Your task to perform on an android device: Search for pizza restaurants on Maps Image 0: 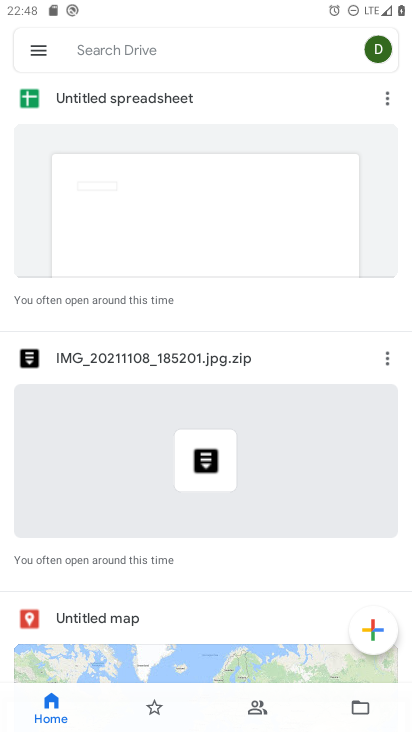
Step 0: press home button
Your task to perform on an android device: Search for pizza restaurants on Maps Image 1: 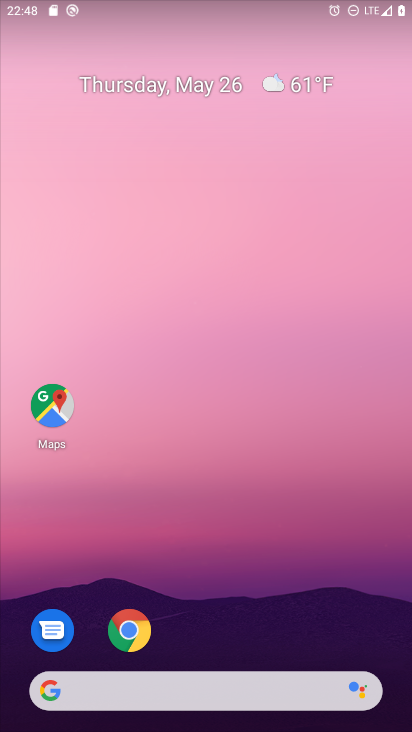
Step 1: click (33, 406)
Your task to perform on an android device: Search for pizza restaurants on Maps Image 2: 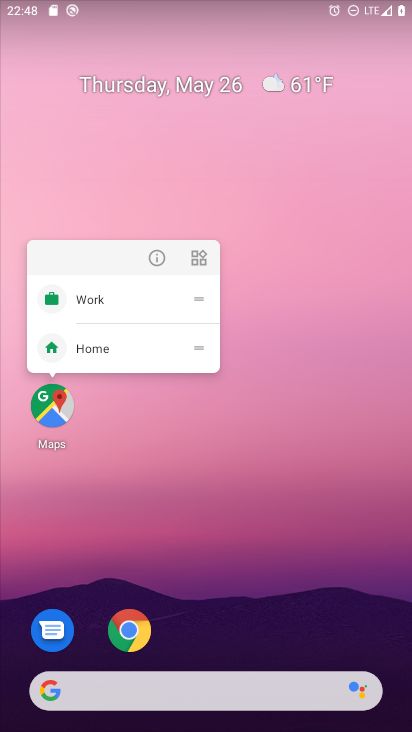
Step 2: click (56, 400)
Your task to perform on an android device: Search for pizza restaurants on Maps Image 3: 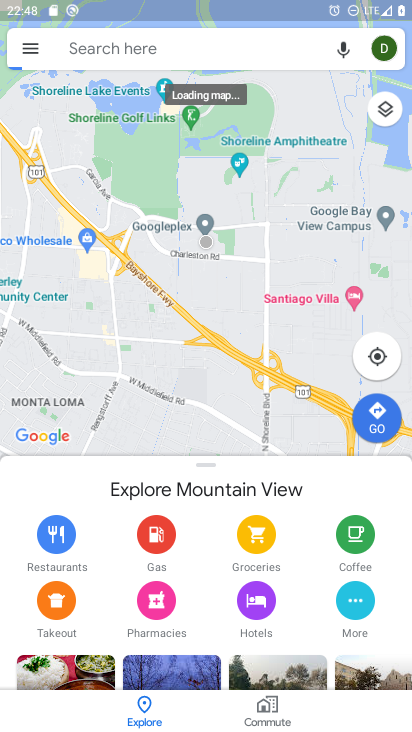
Step 3: click (101, 40)
Your task to perform on an android device: Search for pizza restaurants on Maps Image 4: 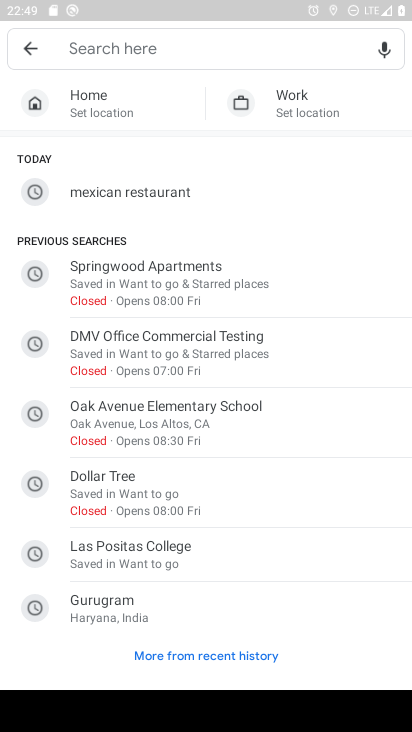
Step 4: type "pizza "
Your task to perform on an android device: Search for pizza restaurants on Maps Image 5: 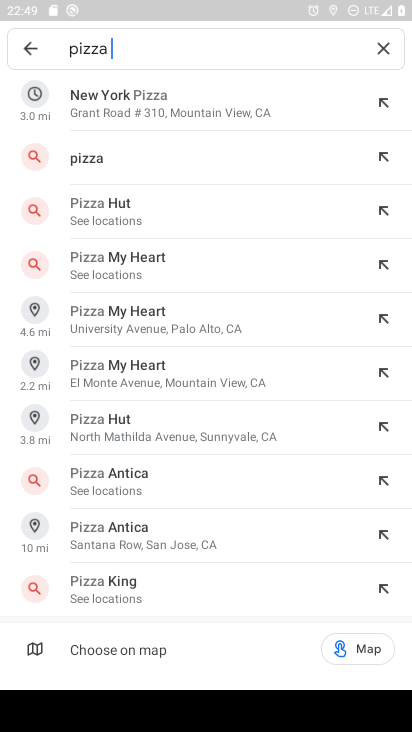
Step 5: type "restuarant"
Your task to perform on an android device: Search for pizza restaurants on Maps Image 6: 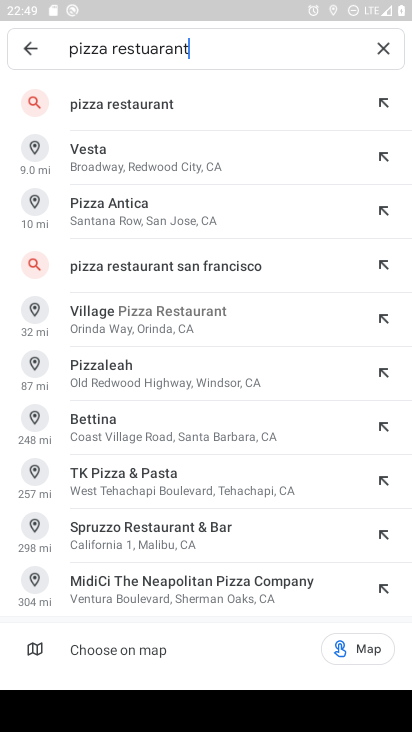
Step 6: click (194, 115)
Your task to perform on an android device: Search for pizza restaurants on Maps Image 7: 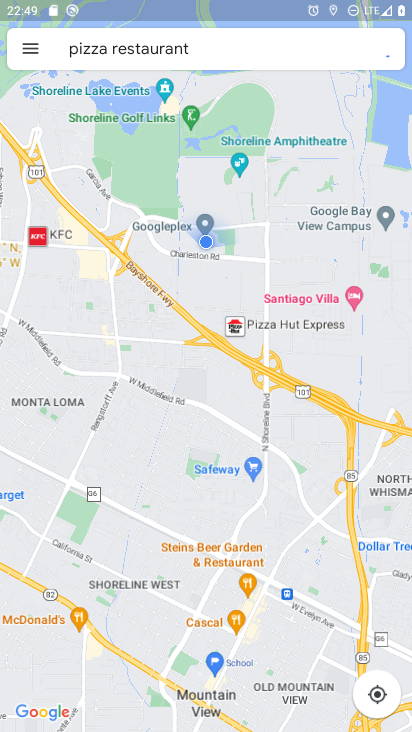
Step 7: task complete